Your task to perform on an android device: move an email to a new category in the gmail app Image 0: 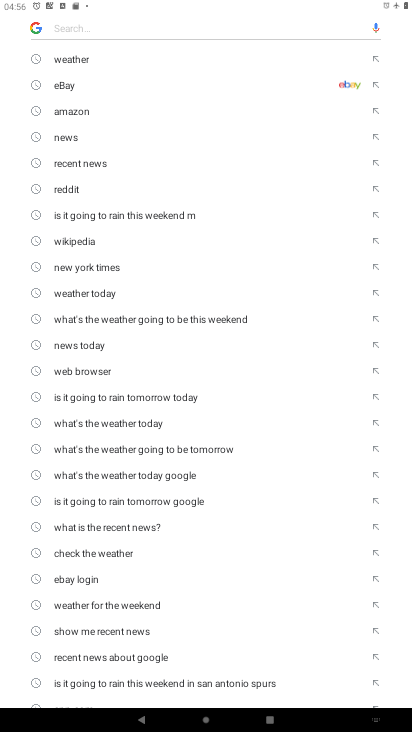
Step 0: press home button
Your task to perform on an android device: move an email to a new category in the gmail app Image 1: 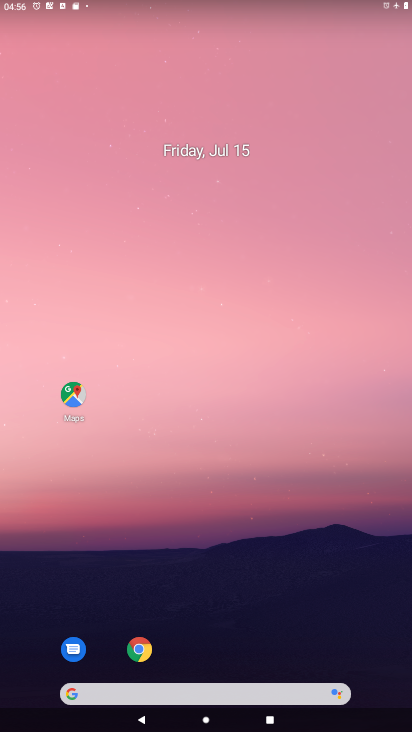
Step 1: drag from (395, 664) to (328, 40)
Your task to perform on an android device: move an email to a new category in the gmail app Image 2: 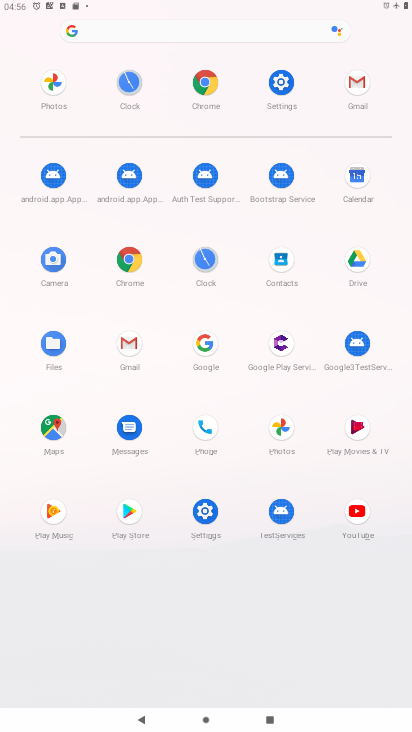
Step 2: click (128, 344)
Your task to perform on an android device: move an email to a new category in the gmail app Image 3: 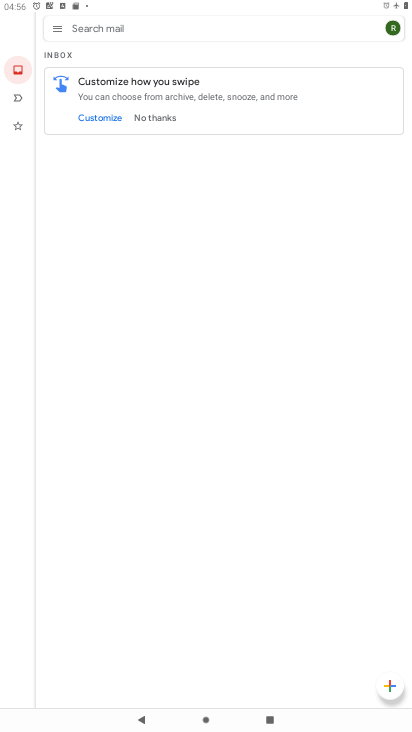
Step 3: click (161, 116)
Your task to perform on an android device: move an email to a new category in the gmail app Image 4: 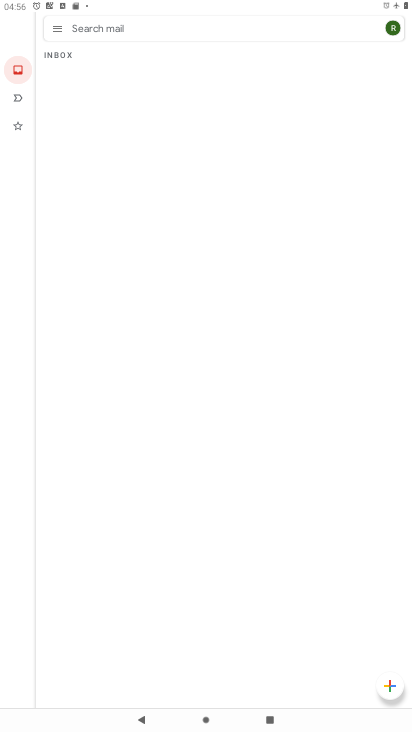
Step 4: click (54, 29)
Your task to perform on an android device: move an email to a new category in the gmail app Image 5: 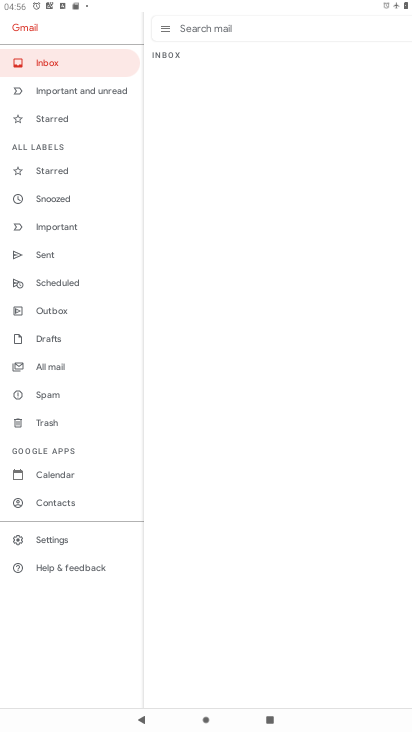
Step 5: click (59, 364)
Your task to perform on an android device: move an email to a new category in the gmail app Image 6: 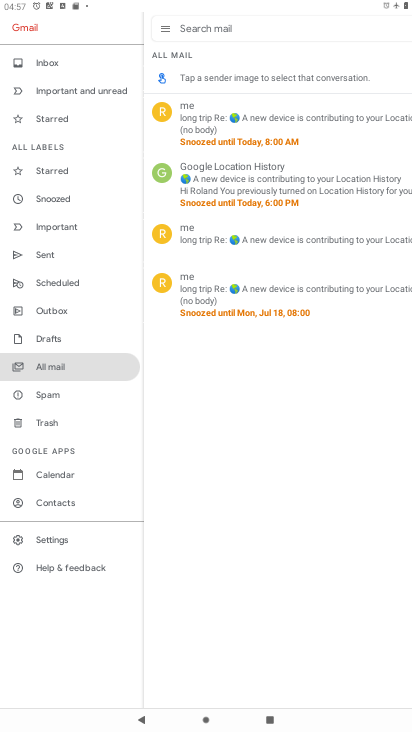
Step 6: click (254, 117)
Your task to perform on an android device: move an email to a new category in the gmail app Image 7: 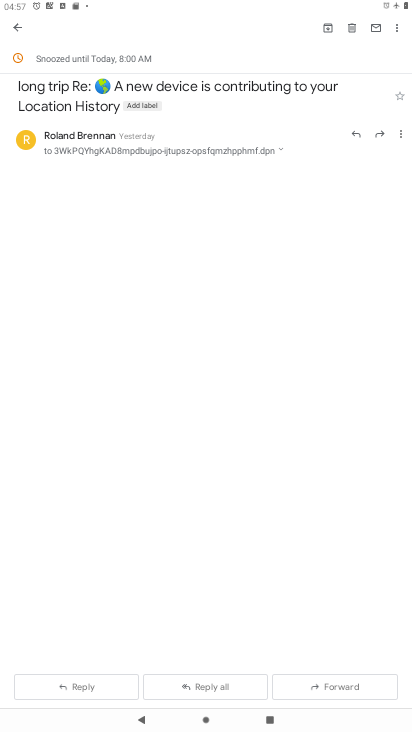
Step 7: click (396, 30)
Your task to perform on an android device: move an email to a new category in the gmail app Image 8: 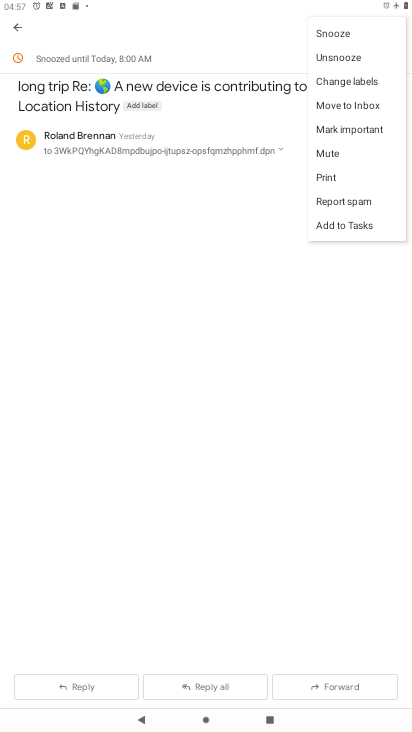
Step 8: click (343, 100)
Your task to perform on an android device: move an email to a new category in the gmail app Image 9: 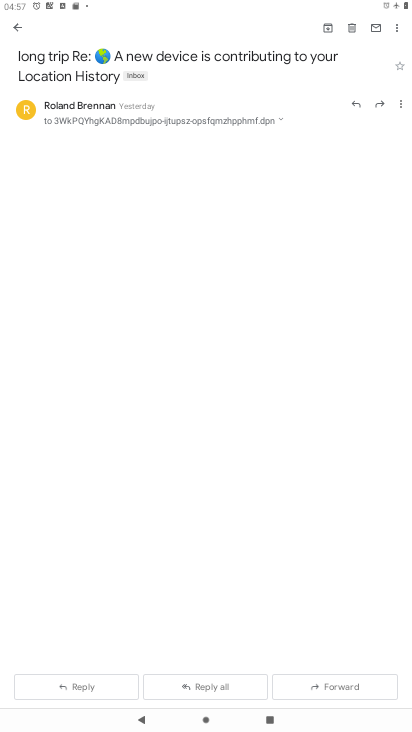
Step 9: task complete